Your task to perform on an android device: snooze an email in the gmail app Image 0: 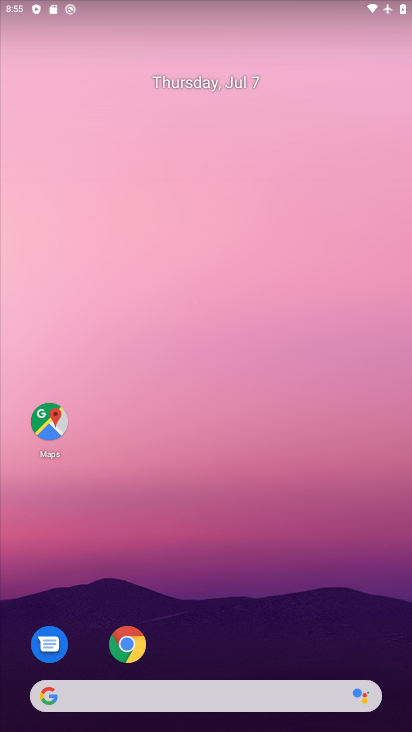
Step 0: drag from (257, 584) to (198, 32)
Your task to perform on an android device: snooze an email in the gmail app Image 1: 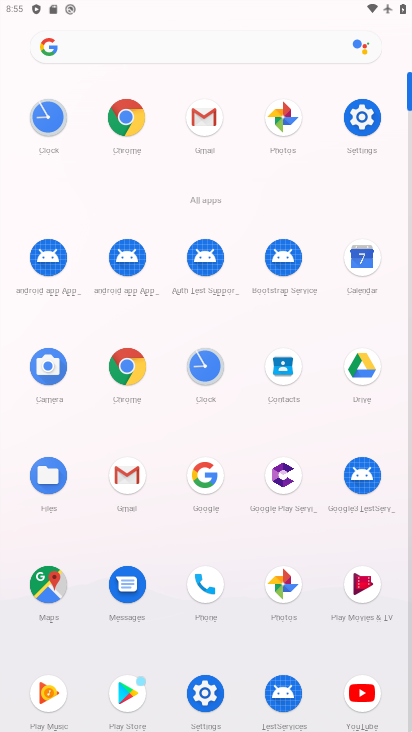
Step 1: click (127, 475)
Your task to perform on an android device: snooze an email in the gmail app Image 2: 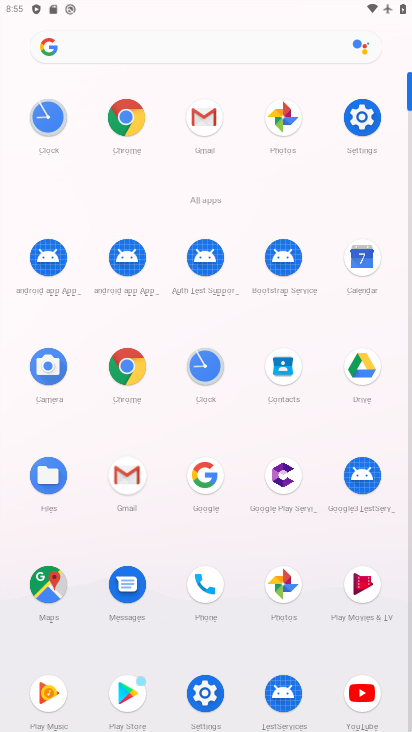
Step 2: click (127, 475)
Your task to perform on an android device: snooze an email in the gmail app Image 3: 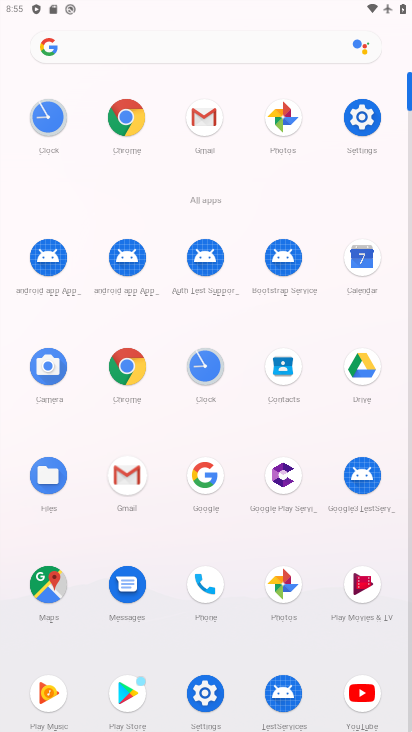
Step 3: click (127, 475)
Your task to perform on an android device: snooze an email in the gmail app Image 4: 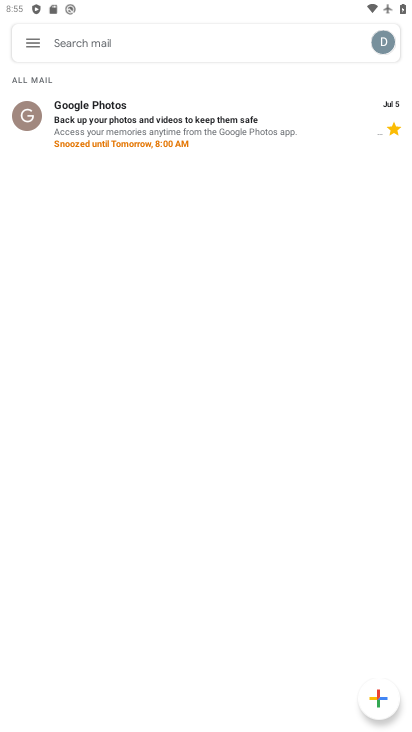
Step 4: click (206, 129)
Your task to perform on an android device: snooze an email in the gmail app Image 5: 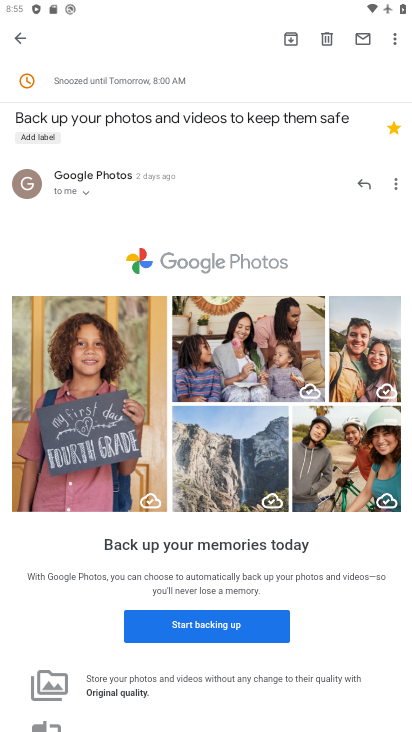
Step 5: click (394, 39)
Your task to perform on an android device: snooze an email in the gmail app Image 6: 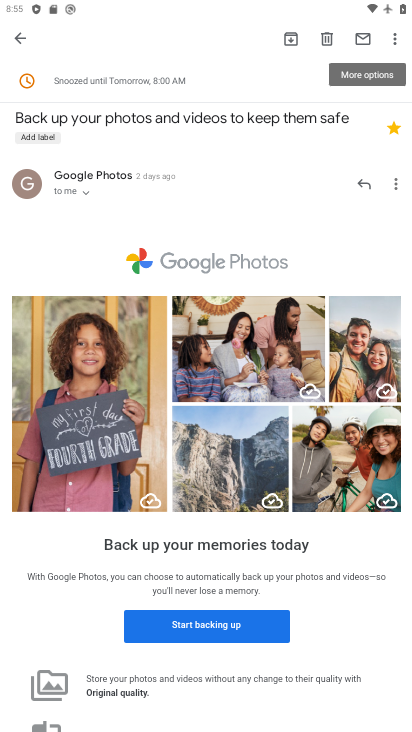
Step 6: click (394, 39)
Your task to perform on an android device: snooze an email in the gmail app Image 7: 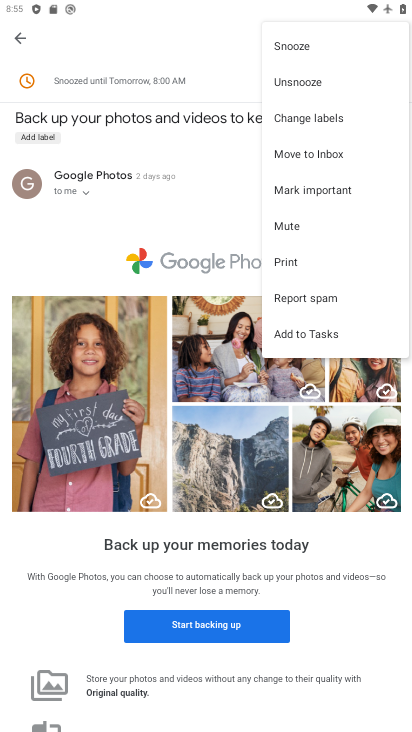
Step 7: click (394, 39)
Your task to perform on an android device: snooze an email in the gmail app Image 8: 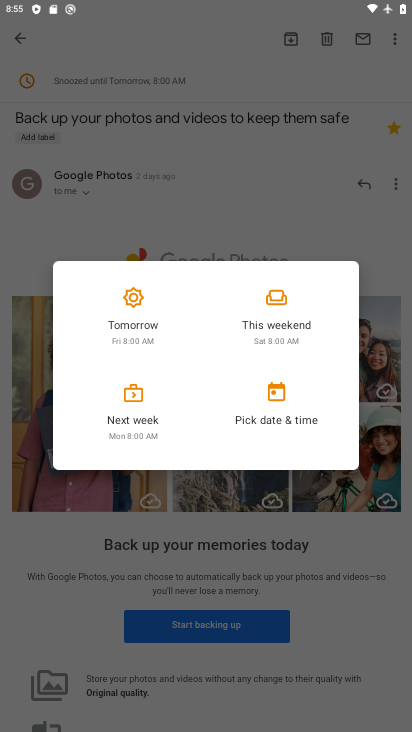
Step 8: click (298, 41)
Your task to perform on an android device: snooze an email in the gmail app Image 9: 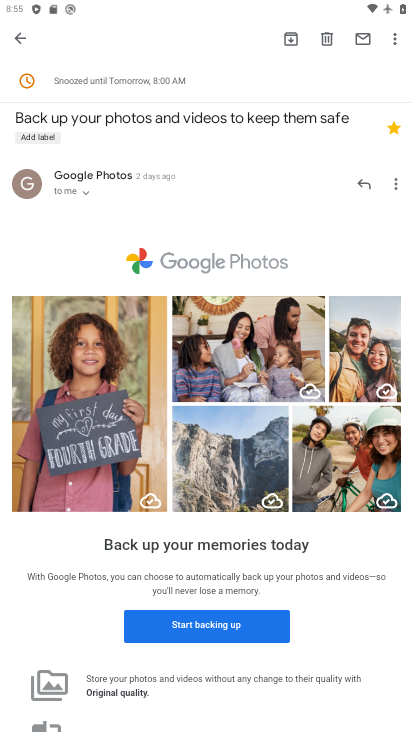
Step 9: click (276, 323)
Your task to perform on an android device: snooze an email in the gmail app Image 10: 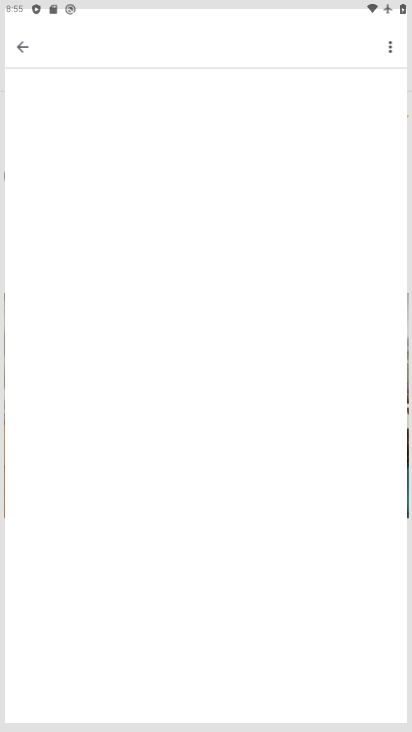
Step 10: click (277, 321)
Your task to perform on an android device: snooze an email in the gmail app Image 11: 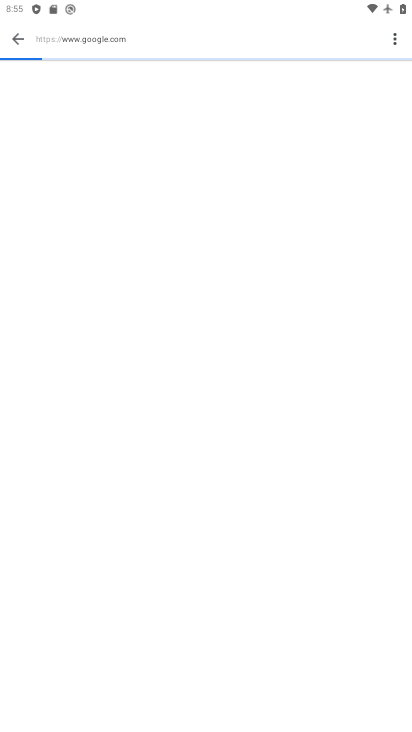
Step 11: task complete